Your task to perform on an android device: Open Youtube and go to the subscriptions tab Image 0: 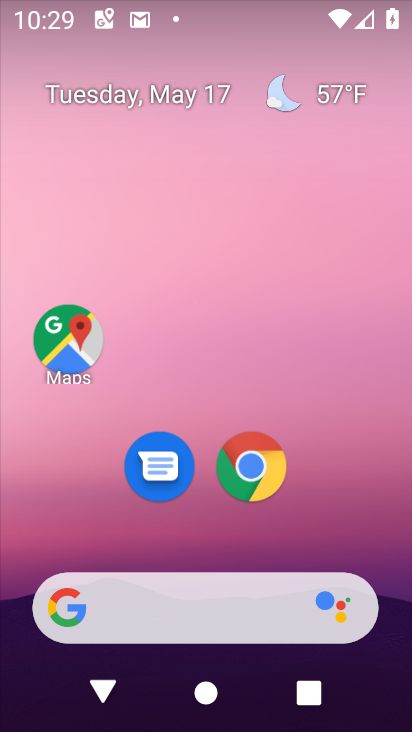
Step 0: drag from (299, 645) to (217, 190)
Your task to perform on an android device: Open Youtube and go to the subscriptions tab Image 1: 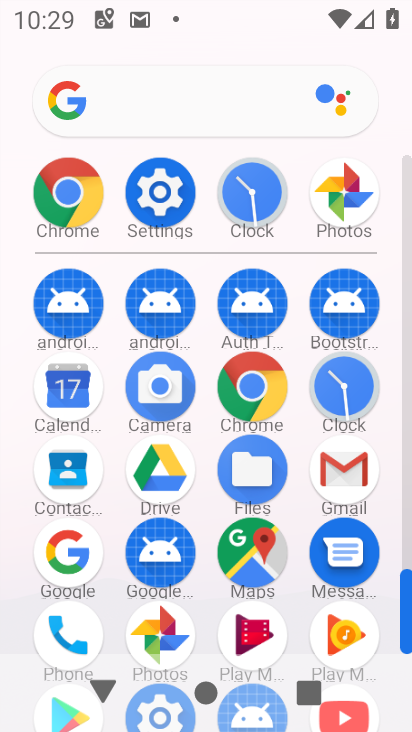
Step 1: drag from (203, 510) to (203, 411)
Your task to perform on an android device: Open Youtube and go to the subscriptions tab Image 2: 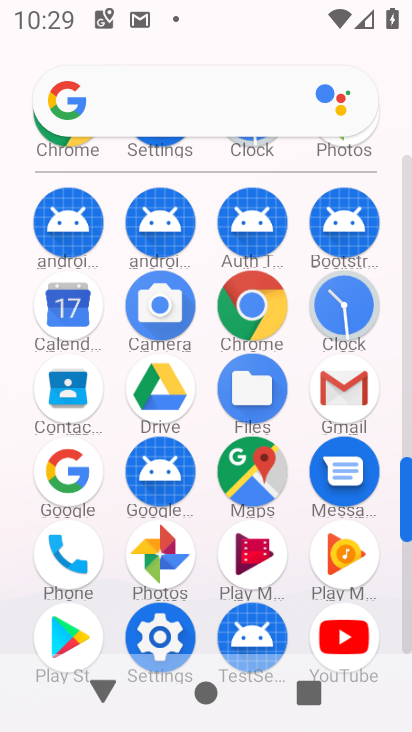
Step 2: click (355, 647)
Your task to perform on an android device: Open Youtube and go to the subscriptions tab Image 3: 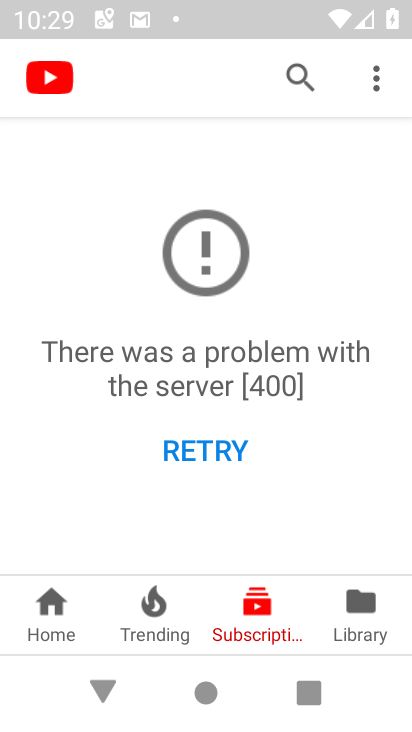
Step 3: click (282, 615)
Your task to perform on an android device: Open Youtube and go to the subscriptions tab Image 4: 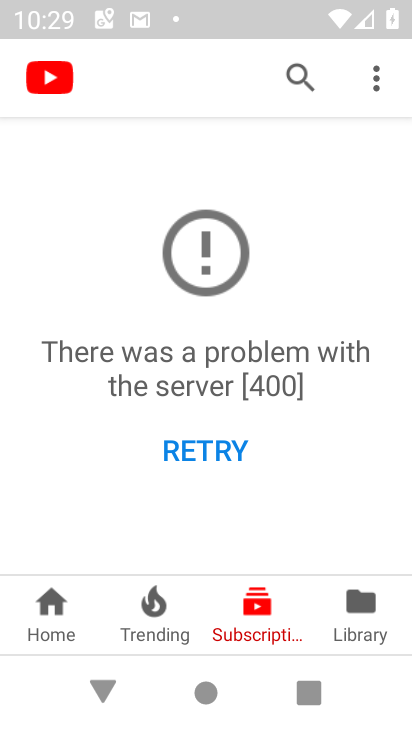
Step 4: task complete